Your task to perform on an android device: delete browsing data in the chrome app Image 0: 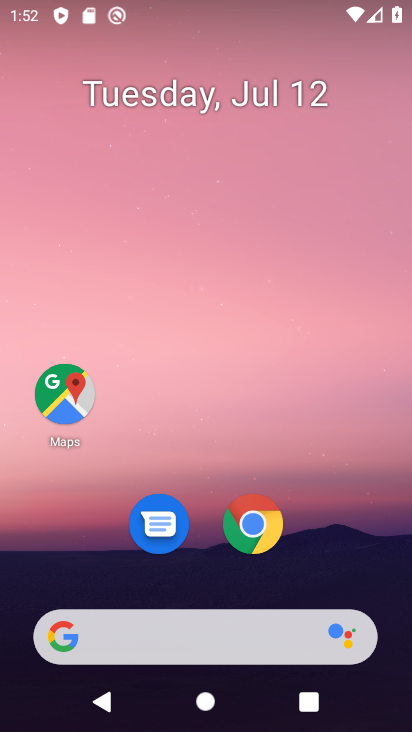
Step 0: drag from (347, 542) to (323, 227)
Your task to perform on an android device: delete browsing data in the chrome app Image 1: 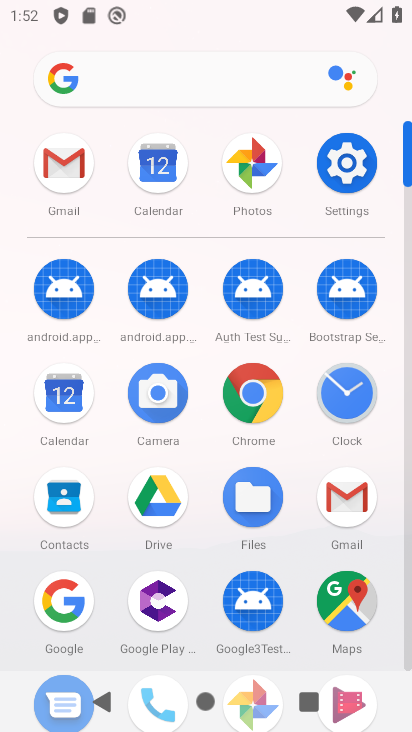
Step 1: click (268, 400)
Your task to perform on an android device: delete browsing data in the chrome app Image 2: 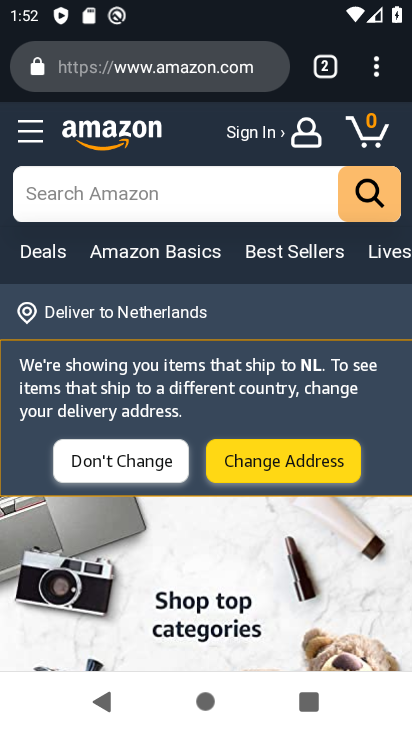
Step 2: click (380, 73)
Your task to perform on an android device: delete browsing data in the chrome app Image 3: 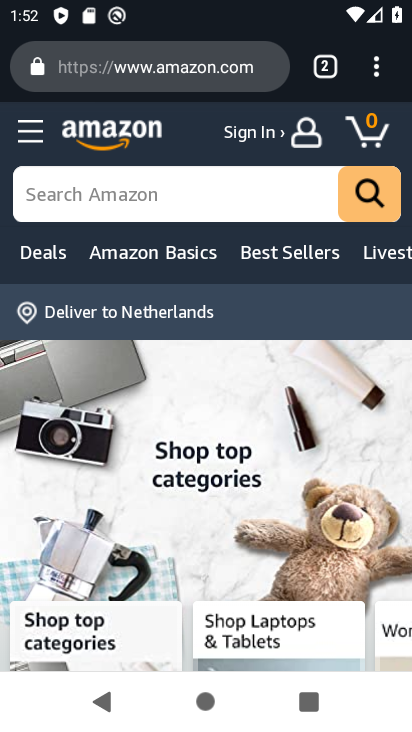
Step 3: click (380, 75)
Your task to perform on an android device: delete browsing data in the chrome app Image 4: 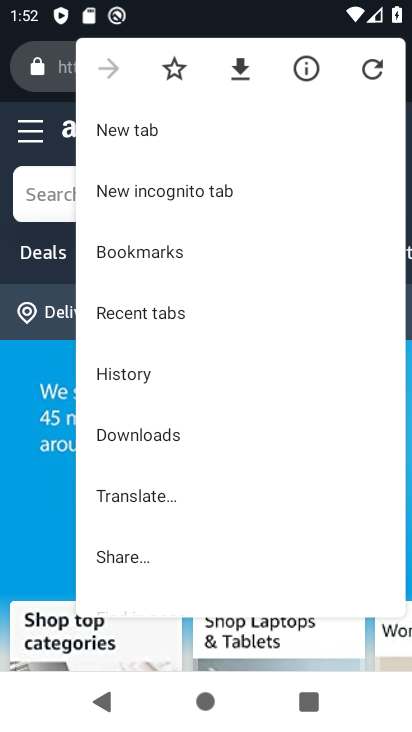
Step 4: click (142, 366)
Your task to perform on an android device: delete browsing data in the chrome app Image 5: 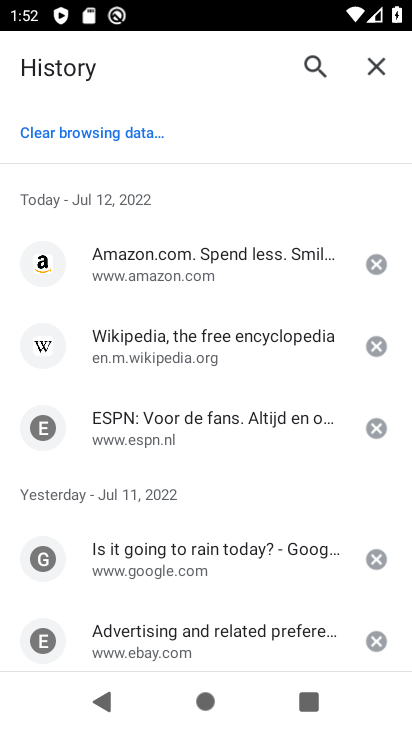
Step 5: click (102, 122)
Your task to perform on an android device: delete browsing data in the chrome app Image 6: 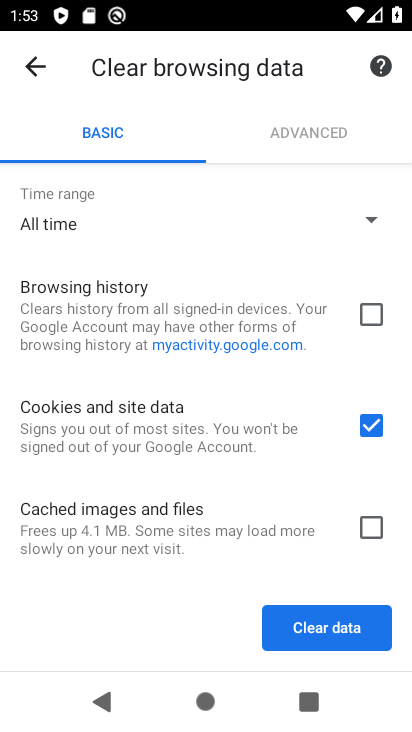
Step 6: click (365, 311)
Your task to perform on an android device: delete browsing data in the chrome app Image 7: 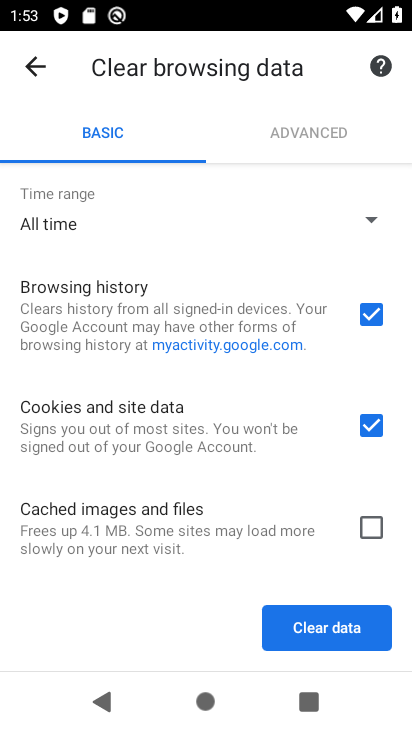
Step 7: click (368, 521)
Your task to perform on an android device: delete browsing data in the chrome app Image 8: 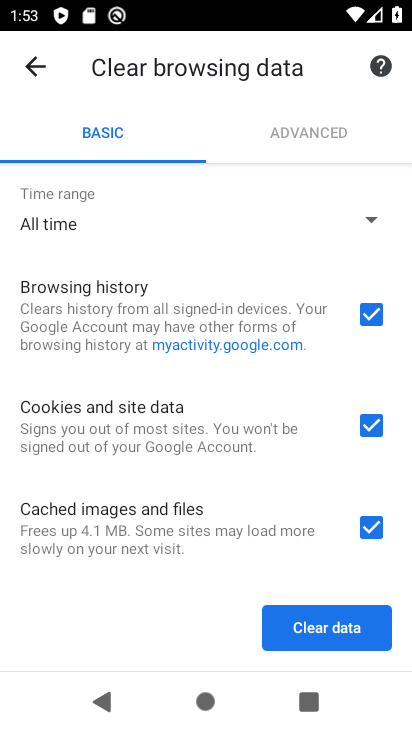
Step 8: click (373, 628)
Your task to perform on an android device: delete browsing data in the chrome app Image 9: 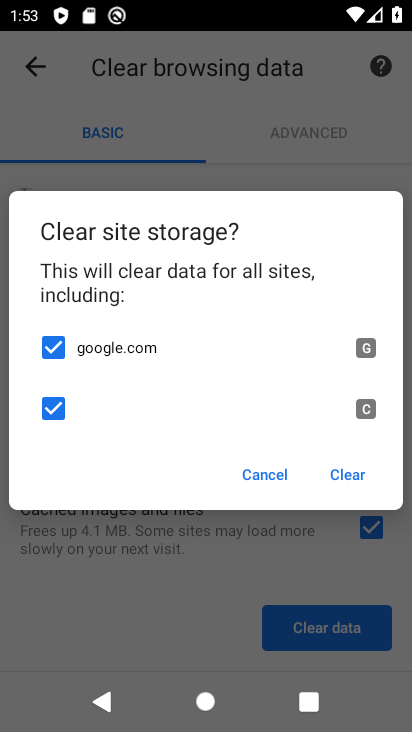
Step 9: click (353, 466)
Your task to perform on an android device: delete browsing data in the chrome app Image 10: 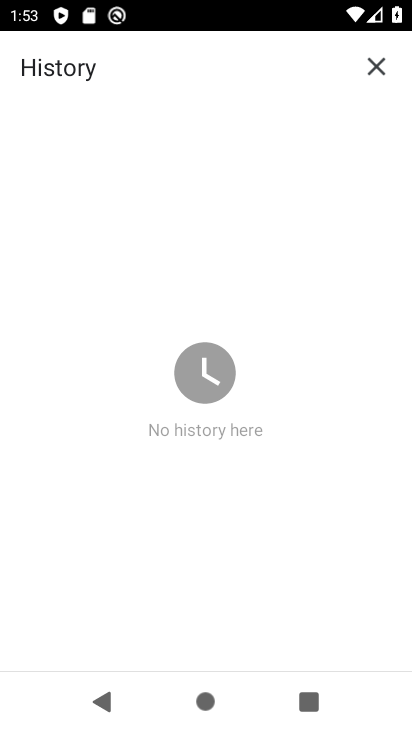
Step 10: task complete